Your task to perform on an android device: turn on airplane mode Image 0: 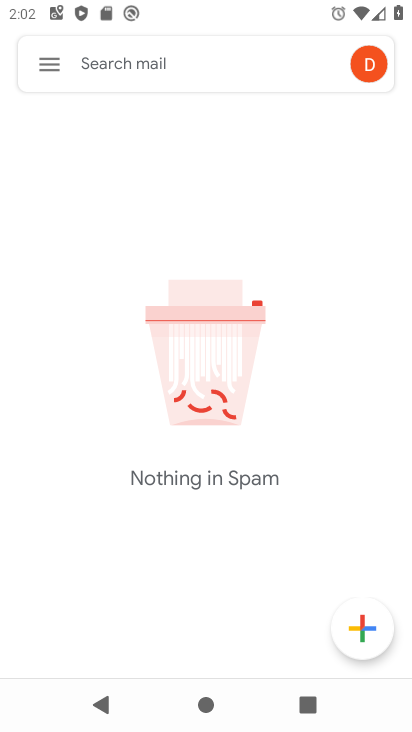
Step 0: drag from (231, 0) to (320, 320)
Your task to perform on an android device: turn on airplane mode Image 1: 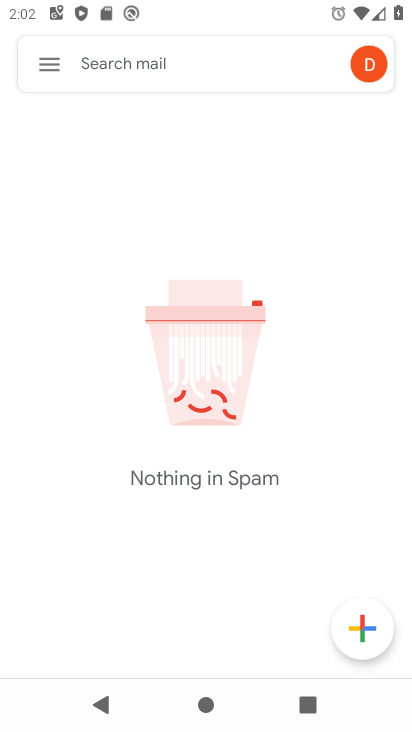
Step 1: drag from (283, 1) to (293, 405)
Your task to perform on an android device: turn on airplane mode Image 2: 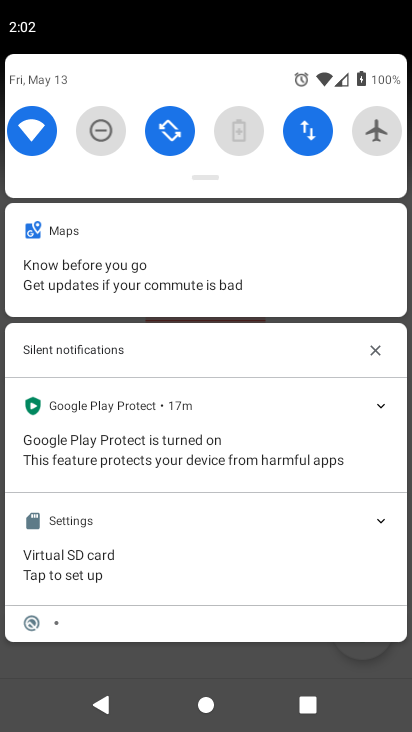
Step 2: click (388, 130)
Your task to perform on an android device: turn on airplane mode Image 3: 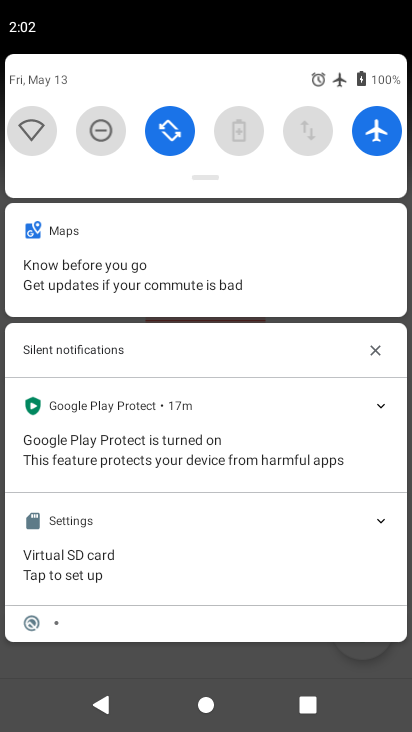
Step 3: task complete